Your task to perform on an android device: Open Wikipedia Image 0: 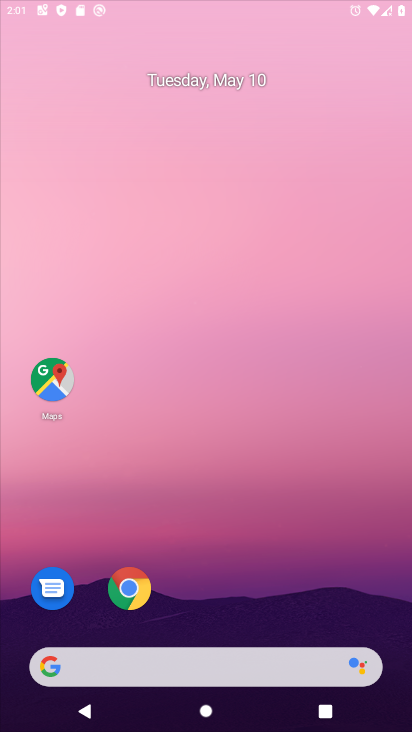
Step 0: drag from (333, 240) to (328, 199)
Your task to perform on an android device: Open Wikipedia Image 1: 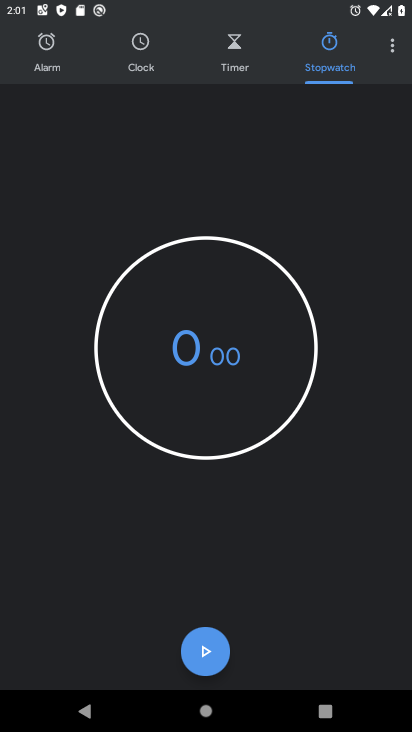
Step 1: press home button
Your task to perform on an android device: Open Wikipedia Image 2: 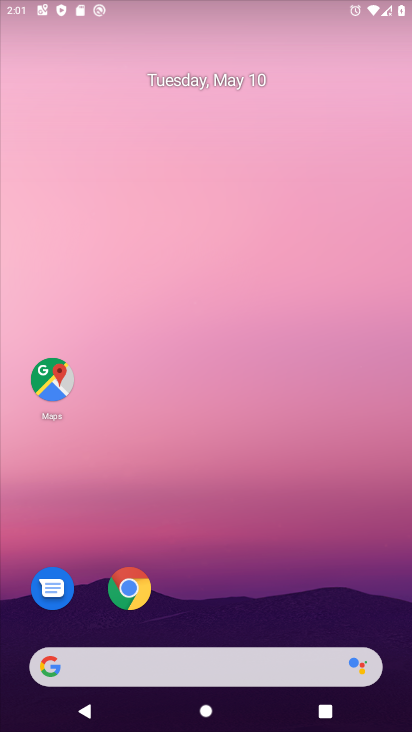
Step 2: drag from (276, 565) to (290, 188)
Your task to perform on an android device: Open Wikipedia Image 3: 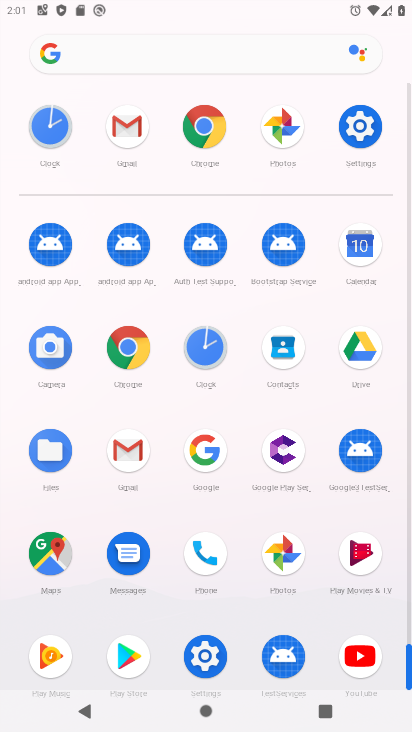
Step 3: click (138, 333)
Your task to perform on an android device: Open Wikipedia Image 4: 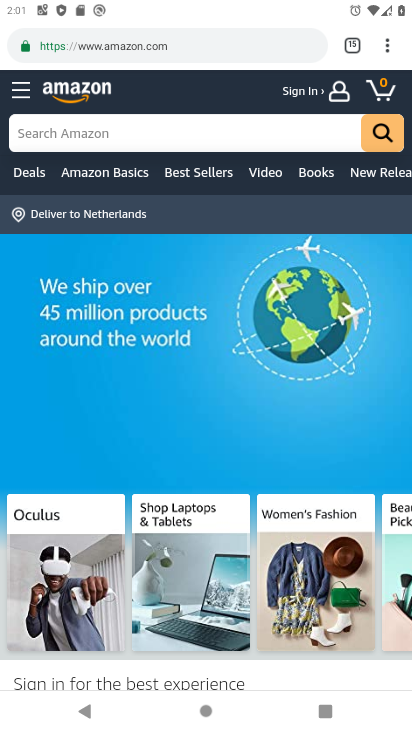
Step 4: click (384, 45)
Your task to perform on an android device: Open Wikipedia Image 5: 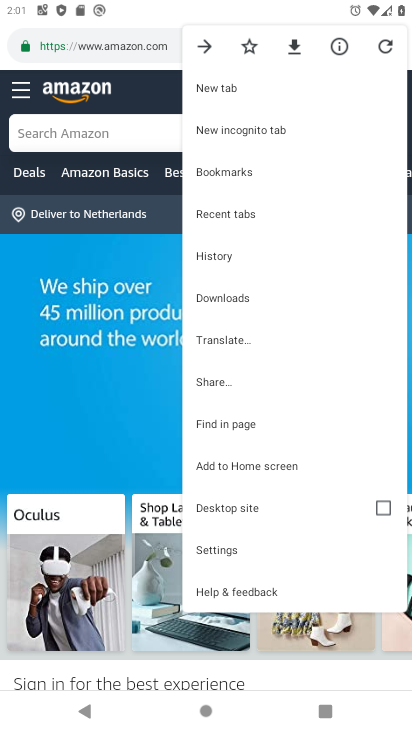
Step 5: click (249, 84)
Your task to perform on an android device: Open Wikipedia Image 6: 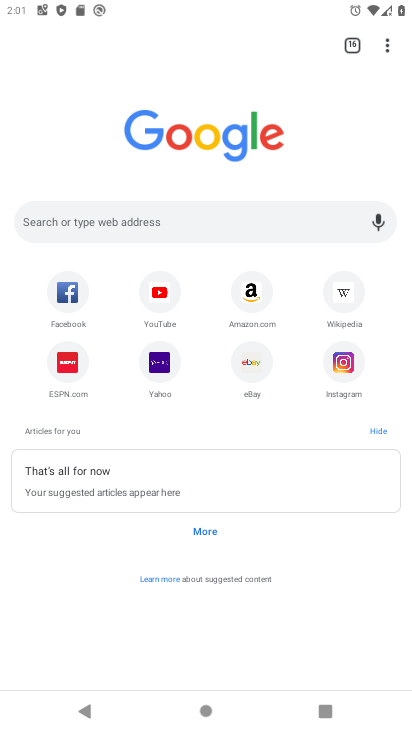
Step 6: click (357, 280)
Your task to perform on an android device: Open Wikipedia Image 7: 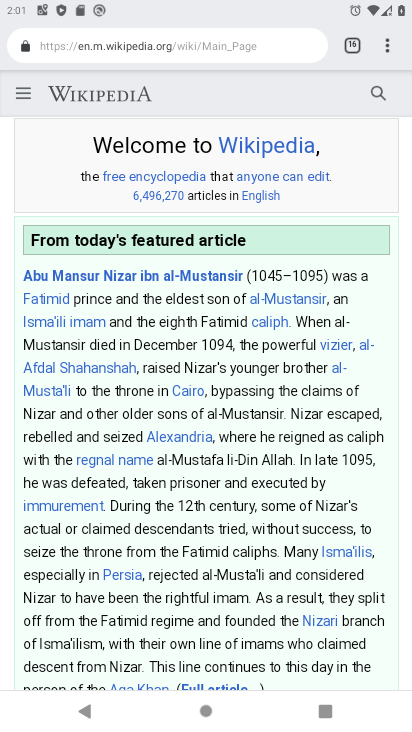
Step 7: task complete